Your task to perform on an android device: What's the weather like in London? Image 0: 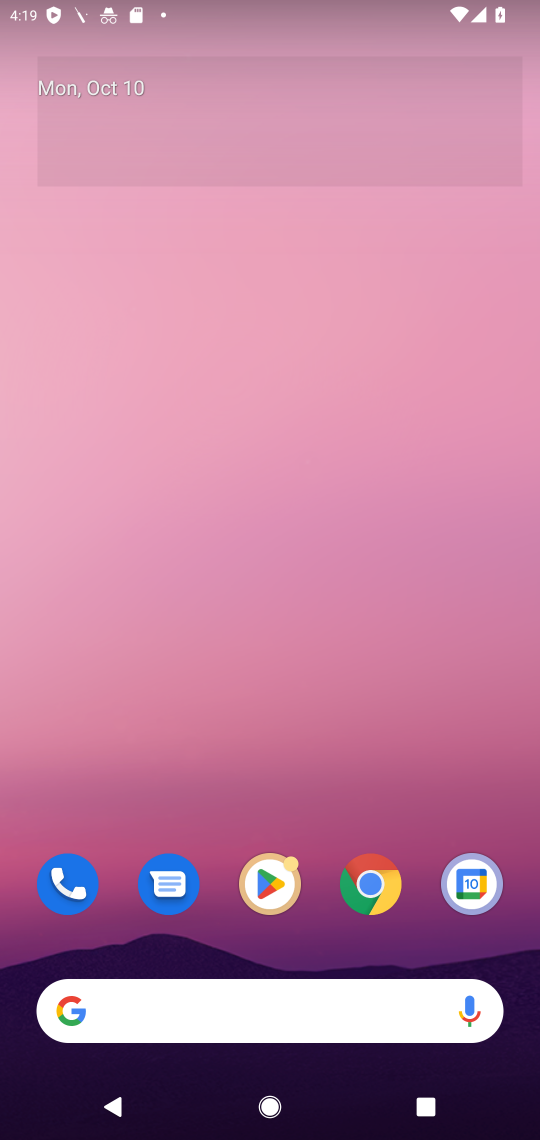
Step 0: click (333, 1007)
Your task to perform on an android device: What's the weather like in London? Image 1: 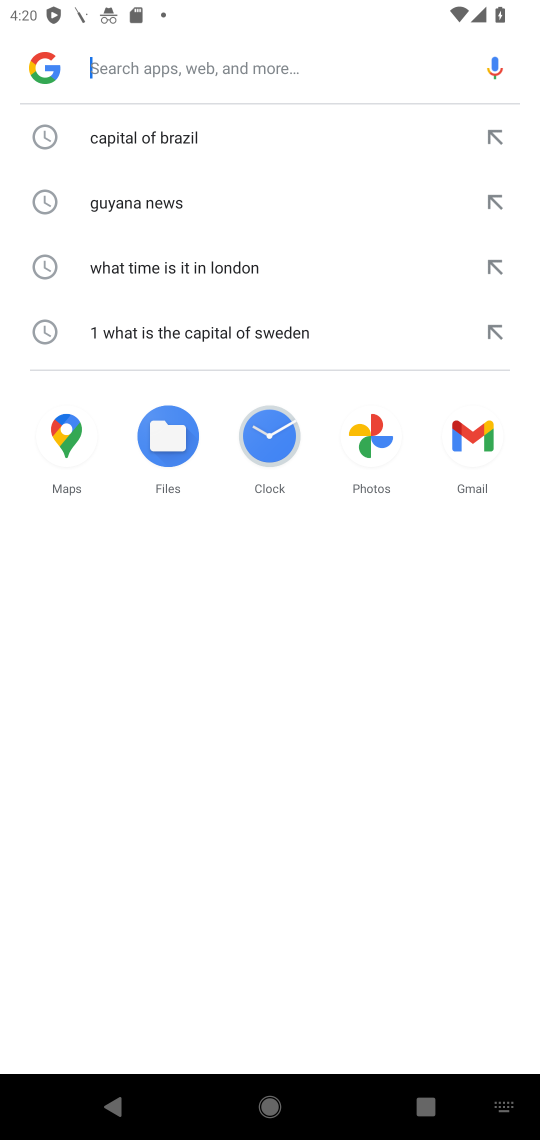
Step 1: type "What's the weather like in London?"
Your task to perform on an android device: What's the weather like in London? Image 2: 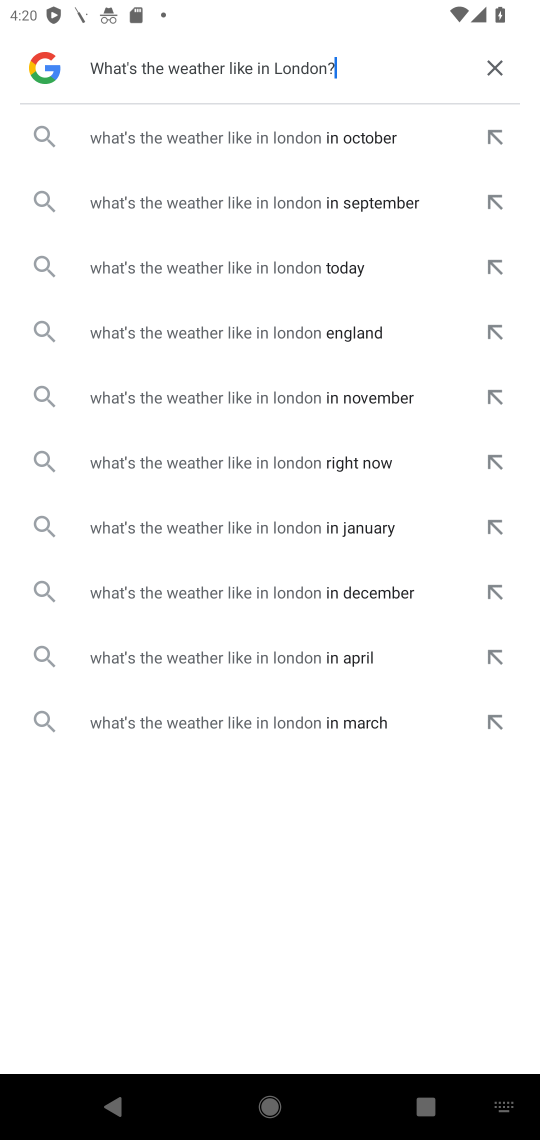
Step 2: click (237, 264)
Your task to perform on an android device: What's the weather like in London? Image 3: 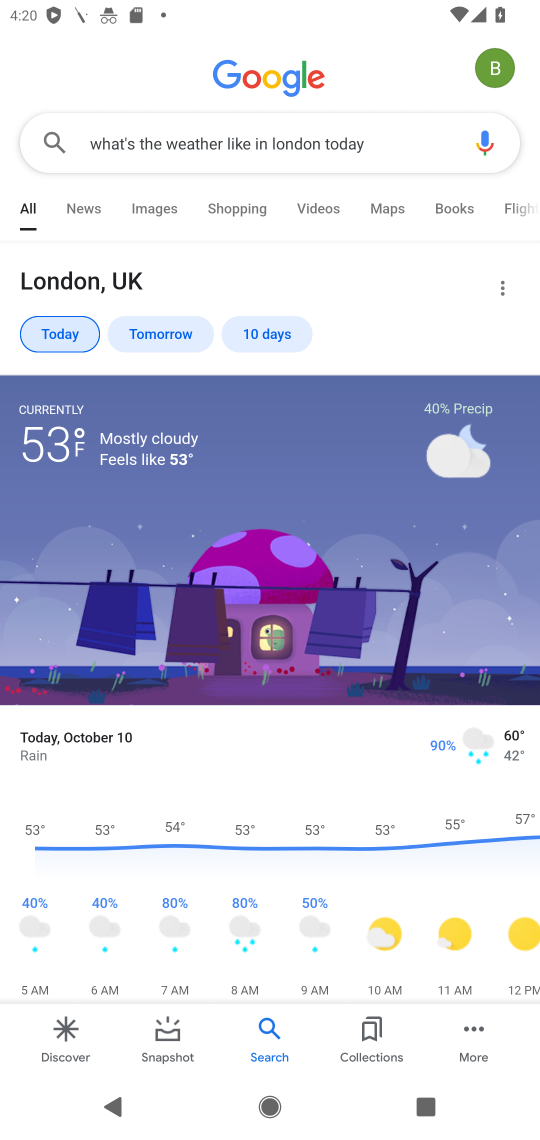
Step 3: task complete